Your task to perform on an android device: Open Maps and search for coffee Image 0: 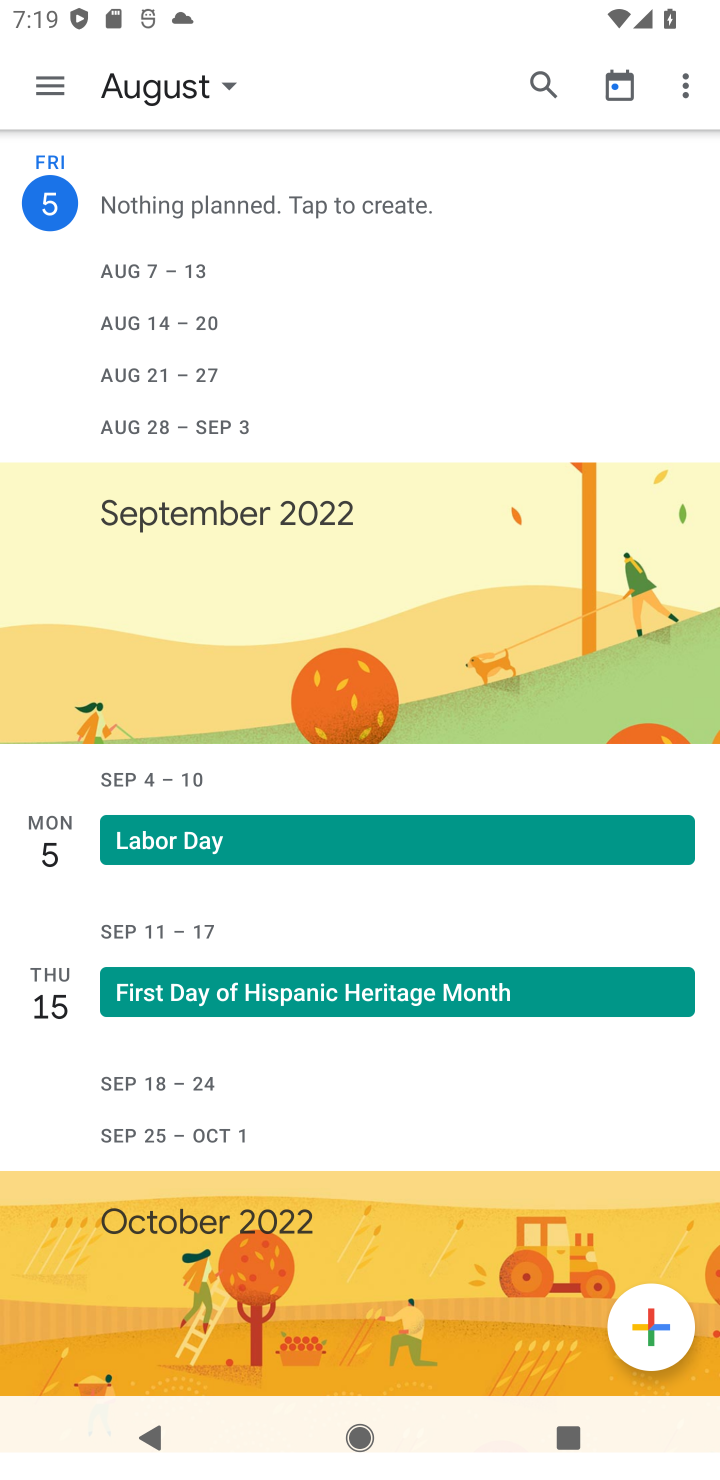
Step 0: press home button
Your task to perform on an android device: Open Maps and search for coffee Image 1: 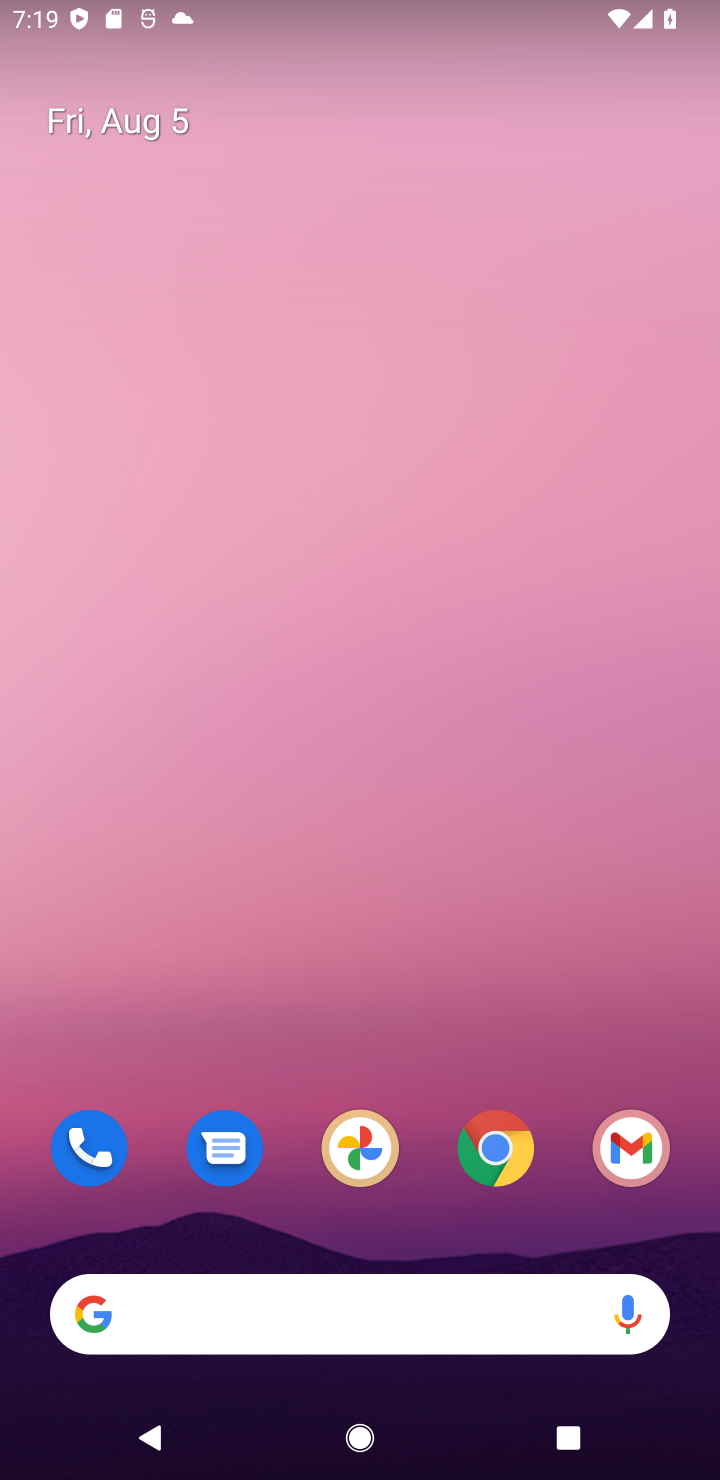
Step 1: drag from (398, 1242) to (420, 183)
Your task to perform on an android device: Open Maps and search for coffee Image 2: 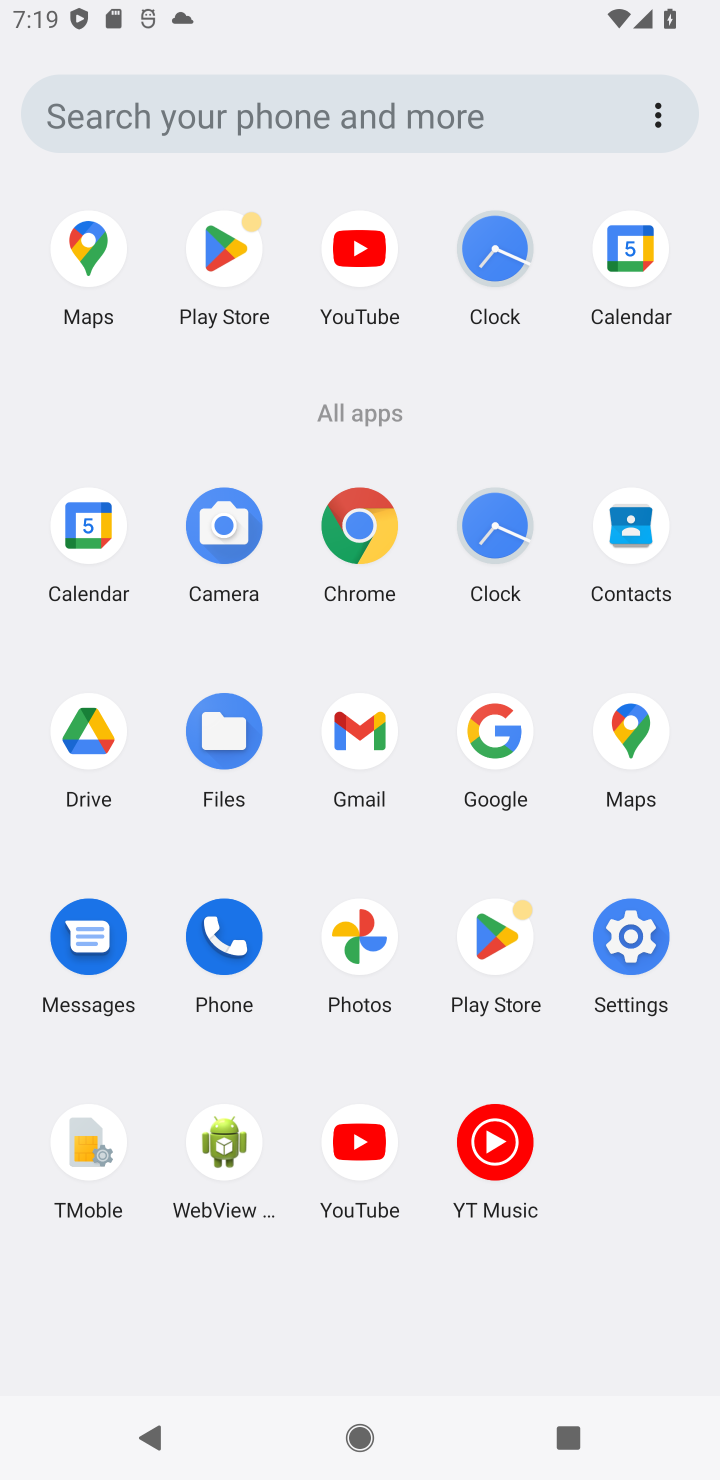
Step 2: click (115, 261)
Your task to perform on an android device: Open Maps and search for coffee Image 3: 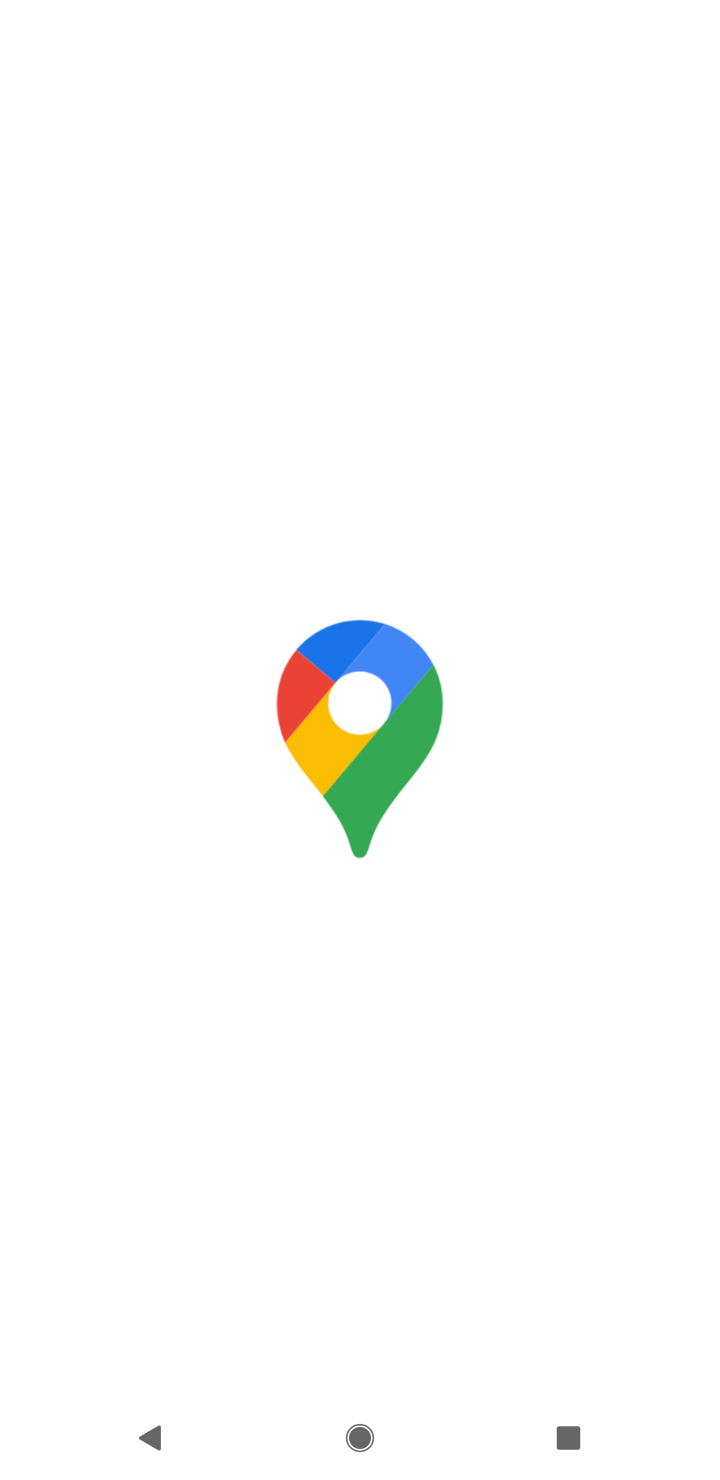
Step 3: task complete